Your task to perform on an android device: Open settings on Google Maps Image 0: 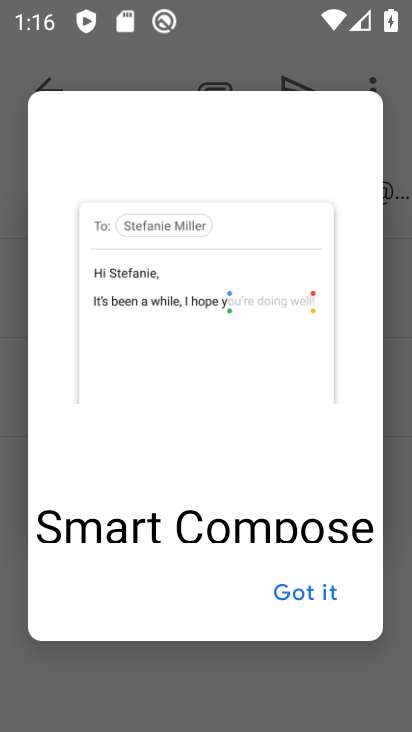
Step 0: press home button
Your task to perform on an android device: Open settings on Google Maps Image 1: 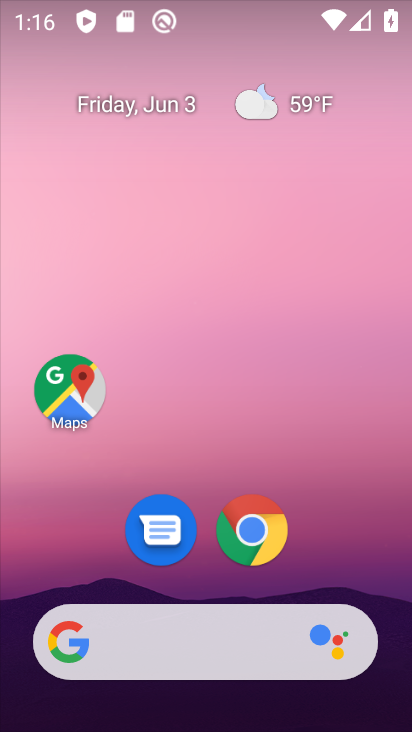
Step 1: drag from (304, 556) to (221, 32)
Your task to perform on an android device: Open settings on Google Maps Image 2: 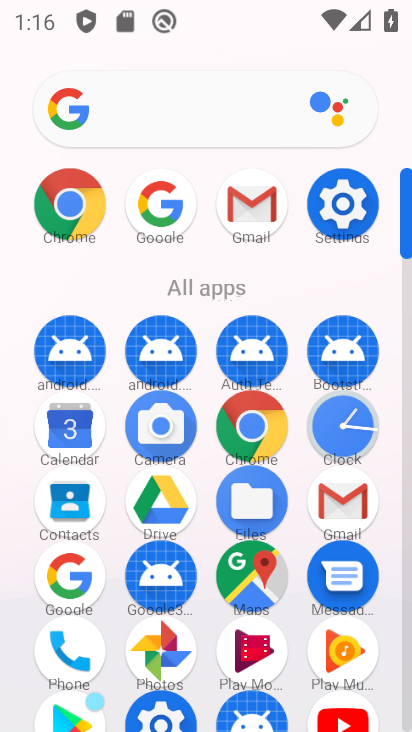
Step 2: click (247, 573)
Your task to perform on an android device: Open settings on Google Maps Image 3: 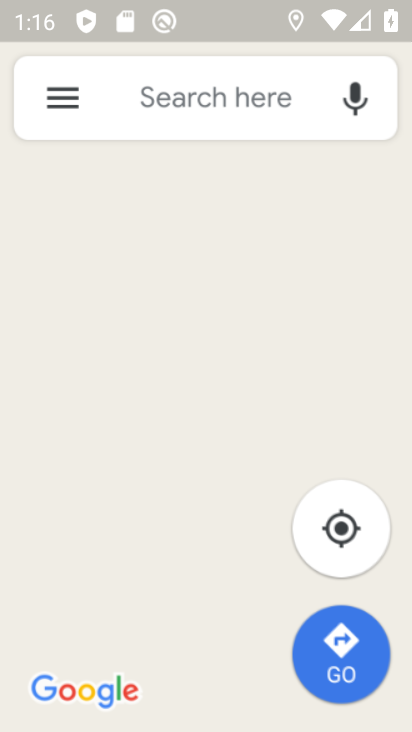
Step 3: click (47, 95)
Your task to perform on an android device: Open settings on Google Maps Image 4: 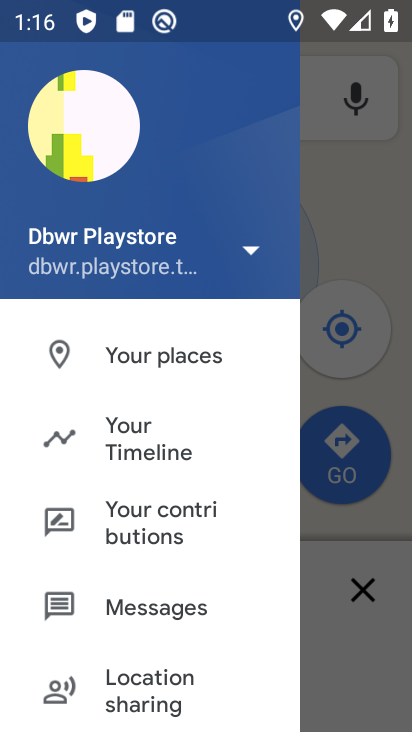
Step 4: drag from (113, 585) to (111, 100)
Your task to perform on an android device: Open settings on Google Maps Image 5: 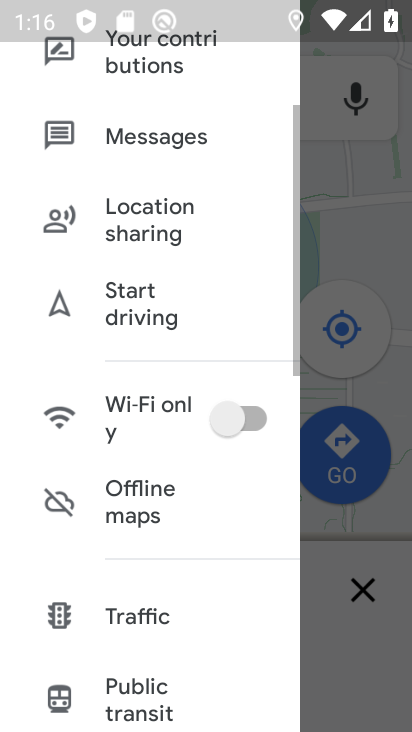
Step 5: drag from (153, 631) to (183, 102)
Your task to perform on an android device: Open settings on Google Maps Image 6: 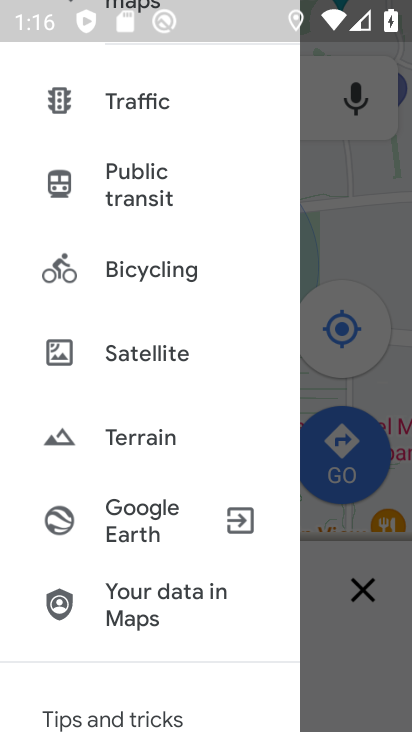
Step 6: drag from (98, 568) to (95, 111)
Your task to perform on an android device: Open settings on Google Maps Image 7: 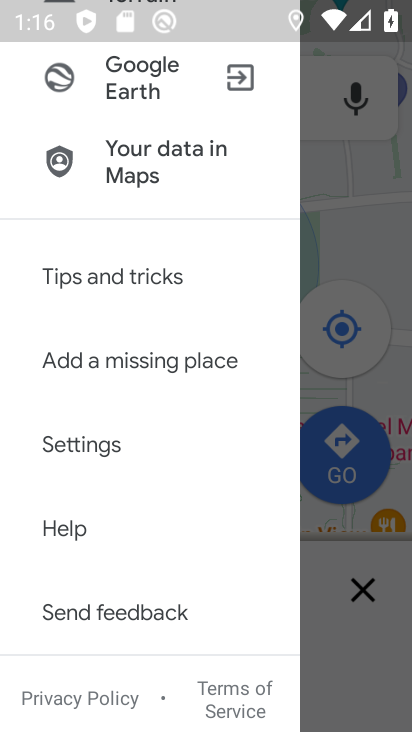
Step 7: click (59, 441)
Your task to perform on an android device: Open settings on Google Maps Image 8: 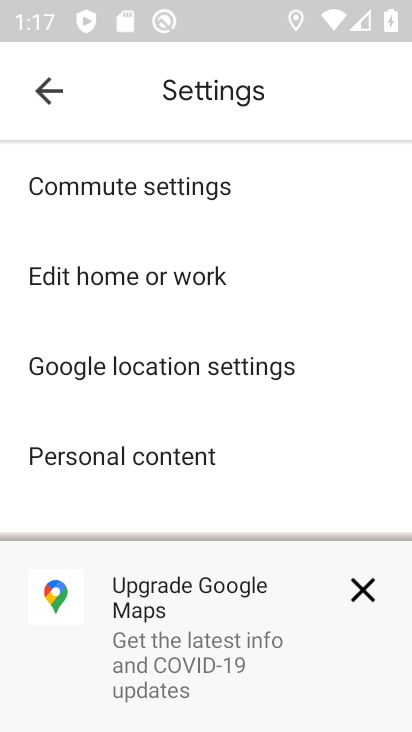
Step 8: task complete